Your task to perform on an android device: stop showing notifications on the lock screen Image 0: 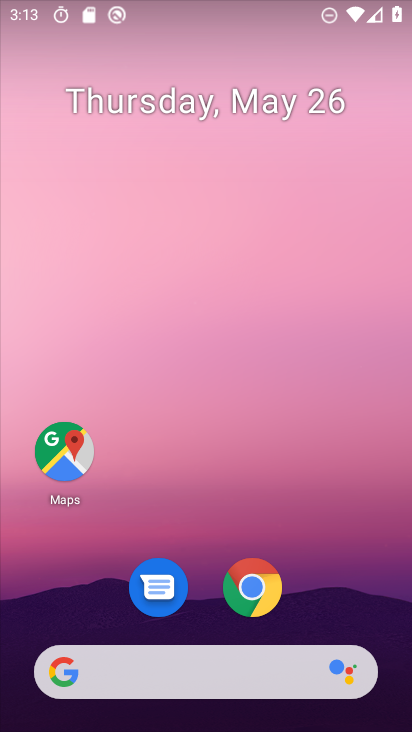
Step 0: drag from (347, 567) to (340, 138)
Your task to perform on an android device: stop showing notifications on the lock screen Image 1: 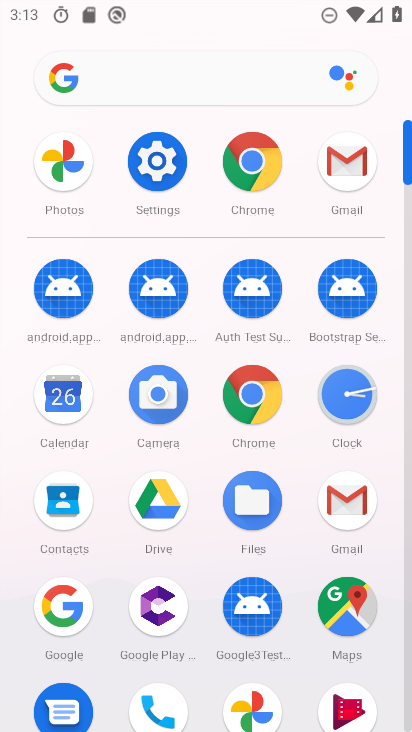
Step 1: click (154, 156)
Your task to perform on an android device: stop showing notifications on the lock screen Image 2: 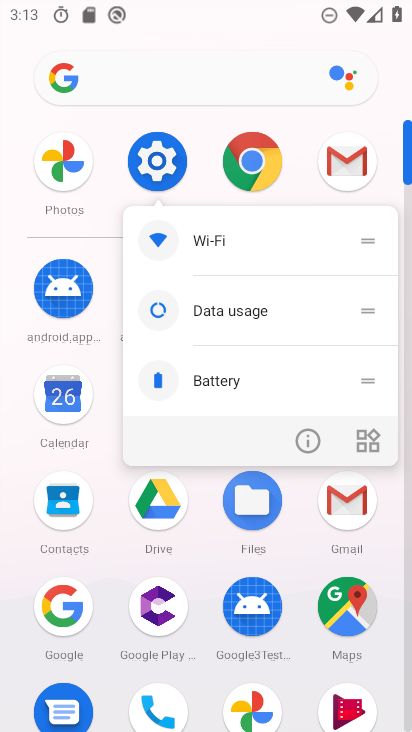
Step 2: click (154, 156)
Your task to perform on an android device: stop showing notifications on the lock screen Image 3: 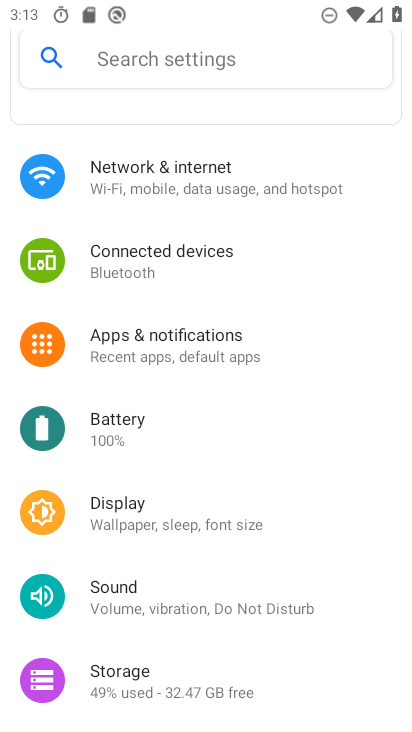
Step 3: click (183, 363)
Your task to perform on an android device: stop showing notifications on the lock screen Image 4: 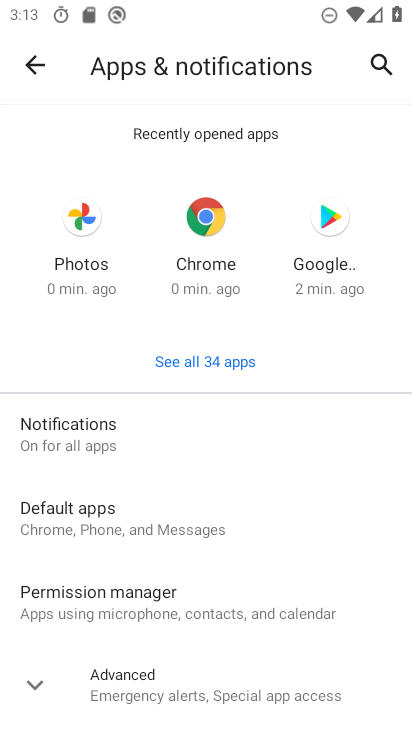
Step 4: click (82, 437)
Your task to perform on an android device: stop showing notifications on the lock screen Image 5: 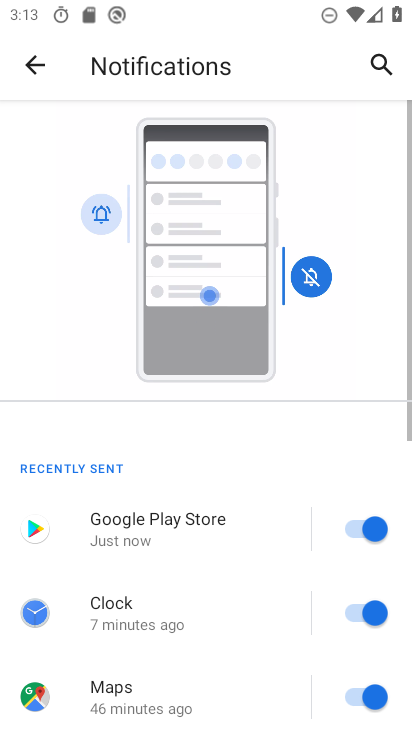
Step 5: drag from (217, 556) to (247, 126)
Your task to perform on an android device: stop showing notifications on the lock screen Image 6: 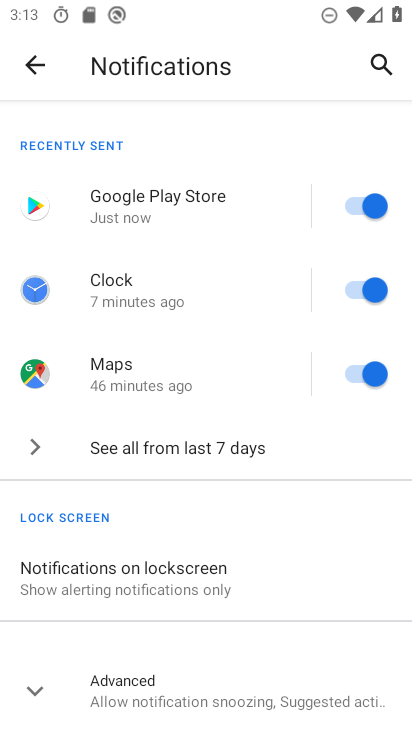
Step 6: click (183, 569)
Your task to perform on an android device: stop showing notifications on the lock screen Image 7: 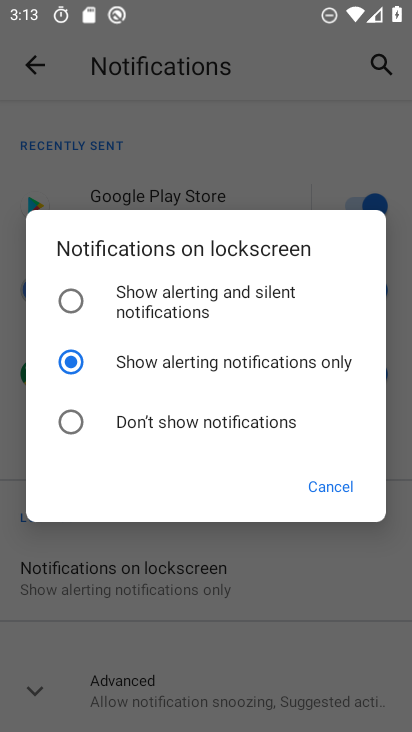
Step 7: click (224, 419)
Your task to perform on an android device: stop showing notifications on the lock screen Image 8: 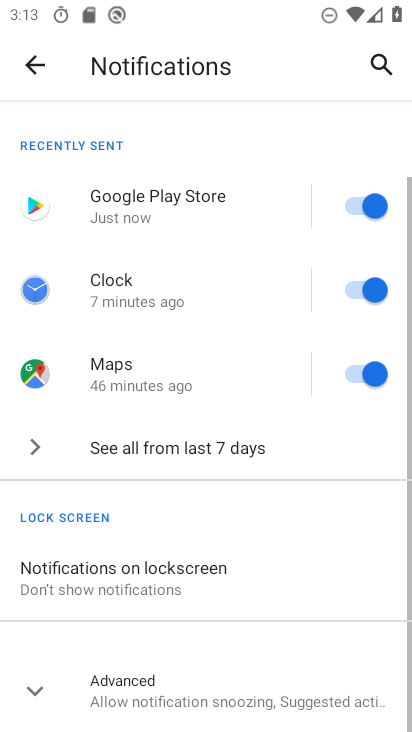
Step 8: task complete